Your task to perform on an android device: turn on location history Image 0: 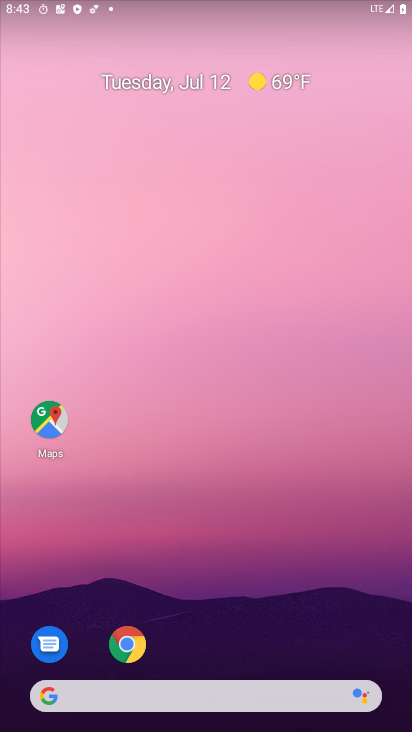
Step 0: press home button
Your task to perform on an android device: turn on location history Image 1: 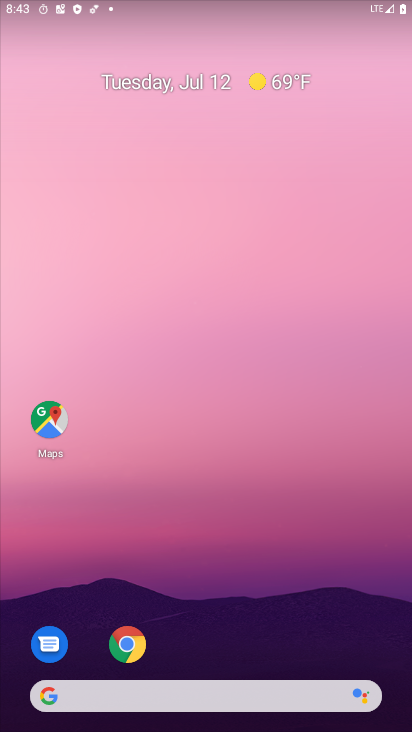
Step 1: drag from (225, 655) to (264, 156)
Your task to perform on an android device: turn on location history Image 2: 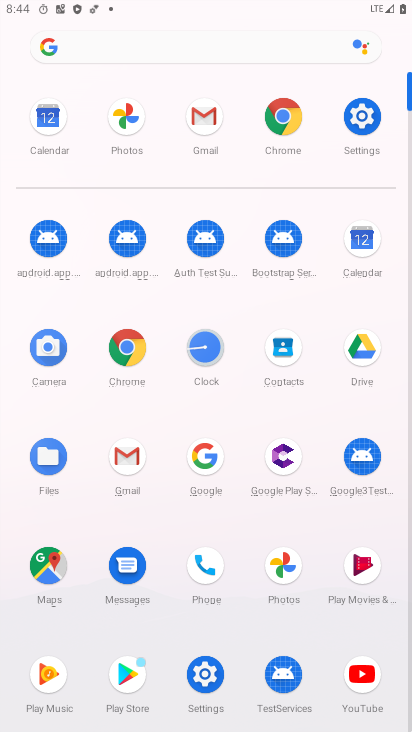
Step 2: click (360, 110)
Your task to perform on an android device: turn on location history Image 3: 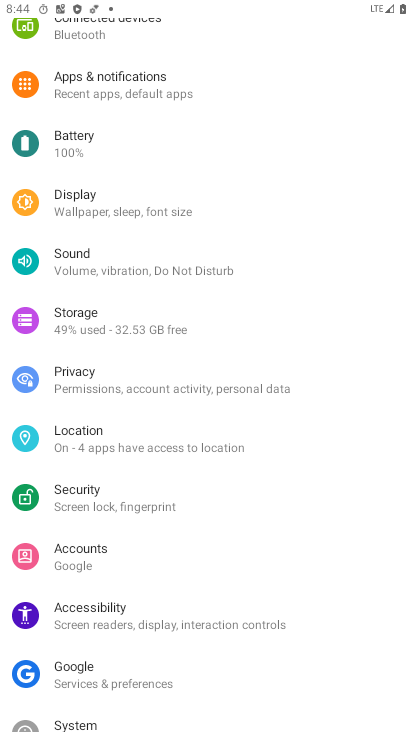
Step 3: click (118, 434)
Your task to perform on an android device: turn on location history Image 4: 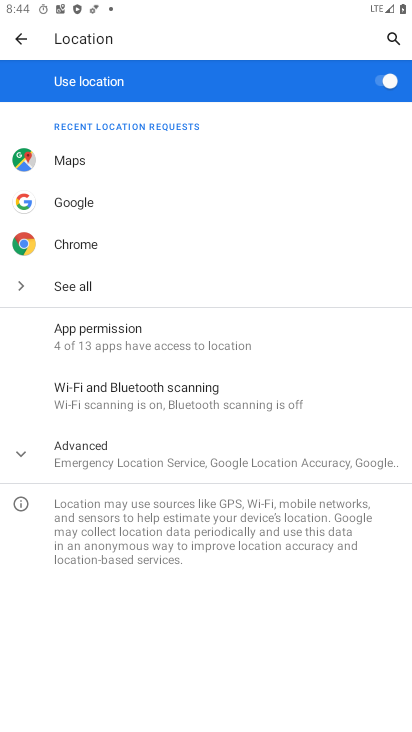
Step 4: click (19, 449)
Your task to perform on an android device: turn on location history Image 5: 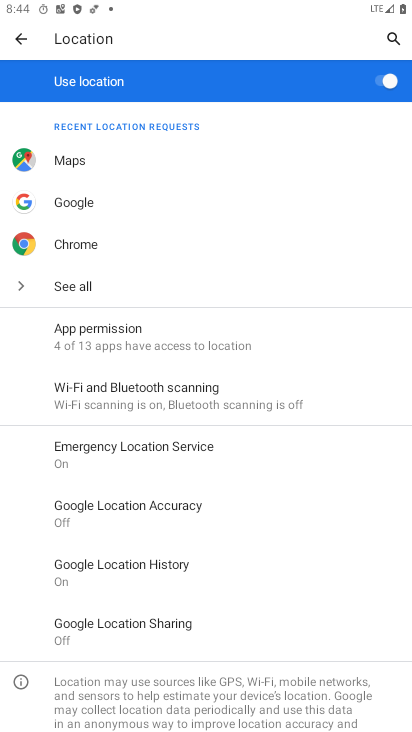
Step 5: click (150, 568)
Your task to perform on an android device: turn on location history Image 6: 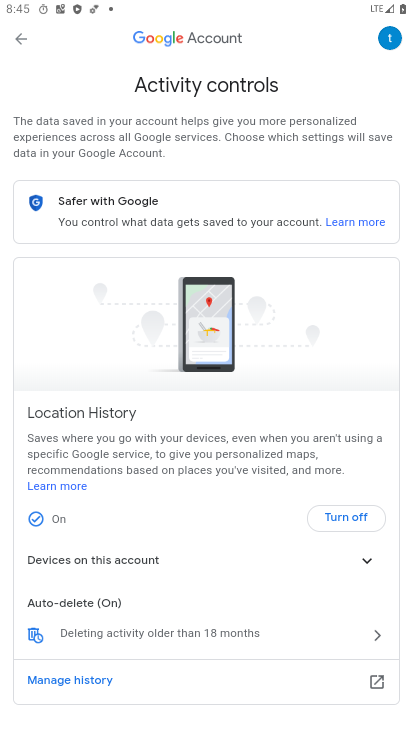
Step 6: task complete